Your task to perform on an android device: toggle show notifications on the lock screen Image 0: 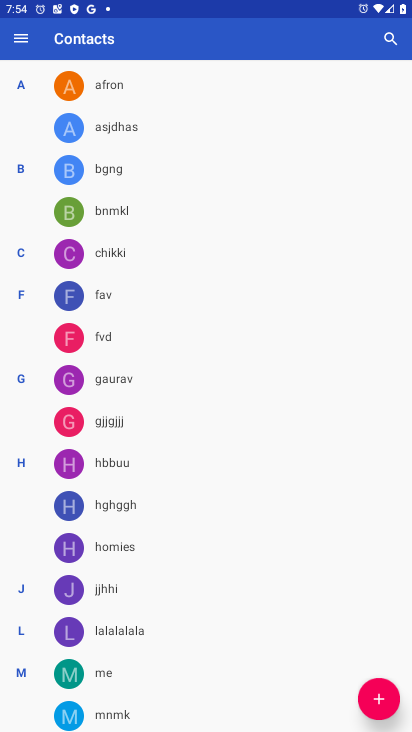
Step 0: press home button
Your task to perform on an android device: toggle show notifications on the lock screen Image 1: 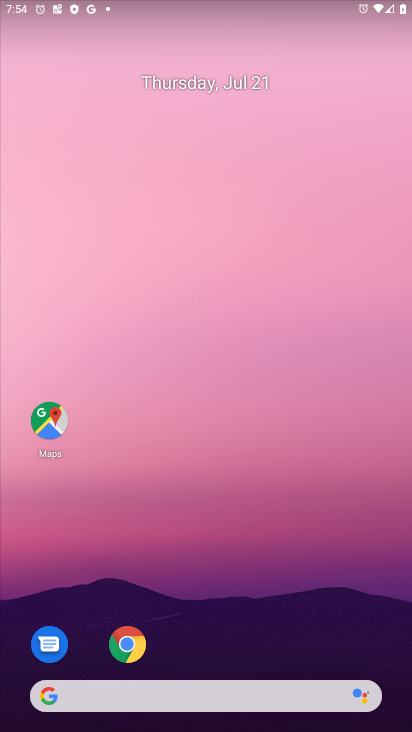
Step 1: drag from (260, 574) to (252, 234)
Your task to perform on an android device: toggle show notifications on the lock screen Image 2: 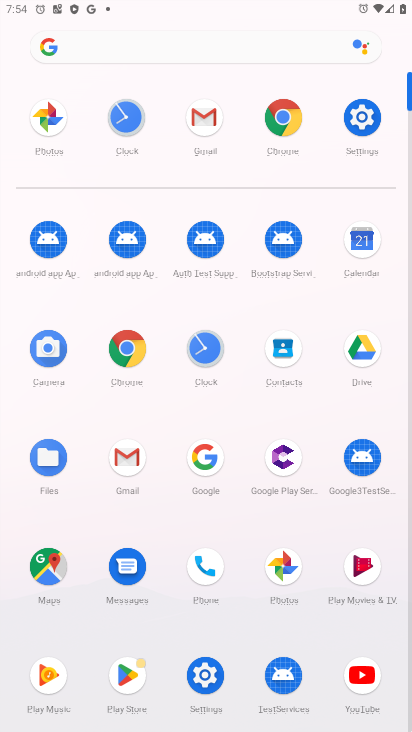
Step 2: click (214, 678)
Your task to perform on an android device: toggle show notifications on the lock screen Image 3: 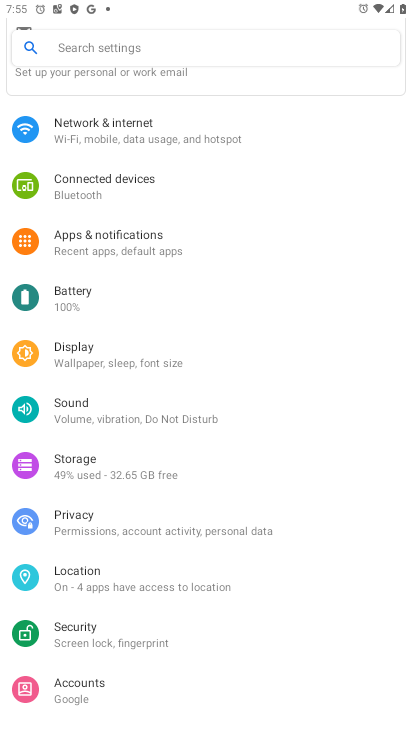
Step 3: click (118, 521)
Your task to perform on an android device: toggle show notifications on the lock screen Image 4: 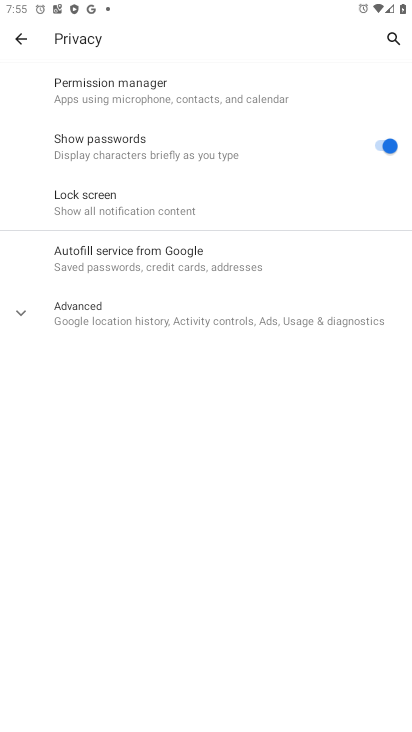
Step 4: click (25, 31)
Your task to perform on an android device: toggle show notifications on the lock screen Image 5: 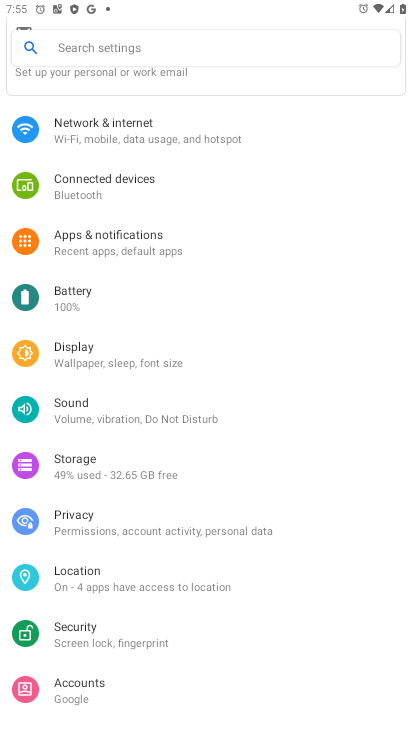
Step 5: click (96, 624)
Your task to perform on an android device: toggle show notifications on the lock screen Image 6: 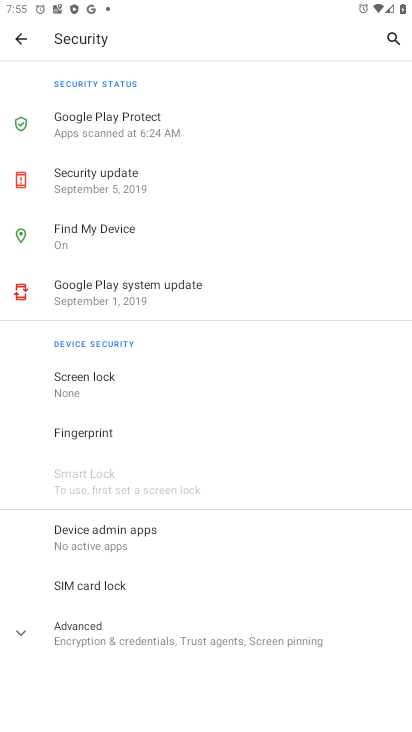
Step 6: task complete